Your task to perform on an android device: snooze an email in the gmail app Image 0: 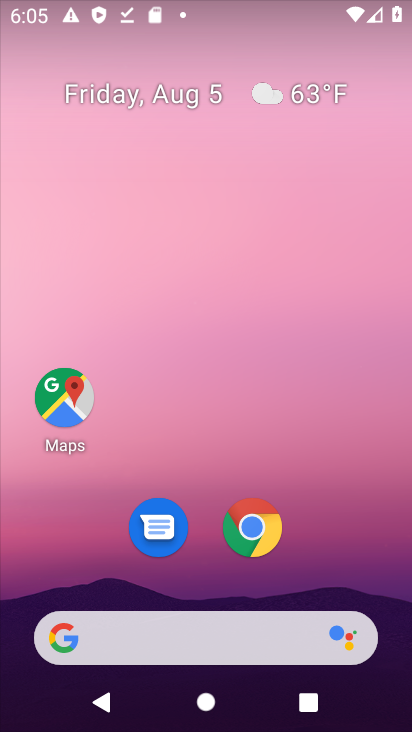
Step 0: drag from (202, 510) to (276, 7)
Your task to perform on an android device: snooze an email in the gmail app Image 1: 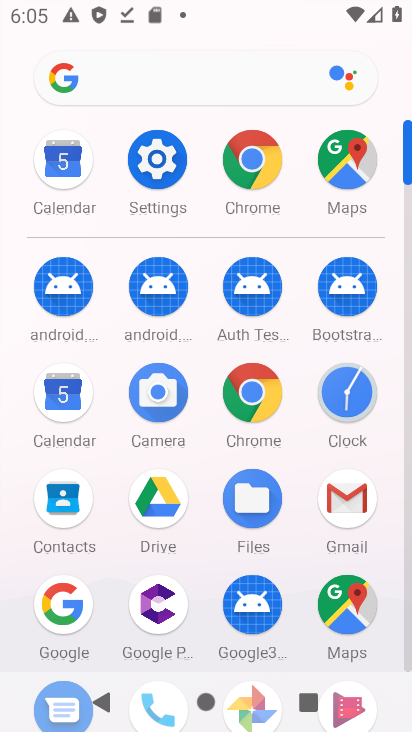
Step 1: click (358, 497)
Your task to perform on an android device: snooze an email in the gmail app Image 2: 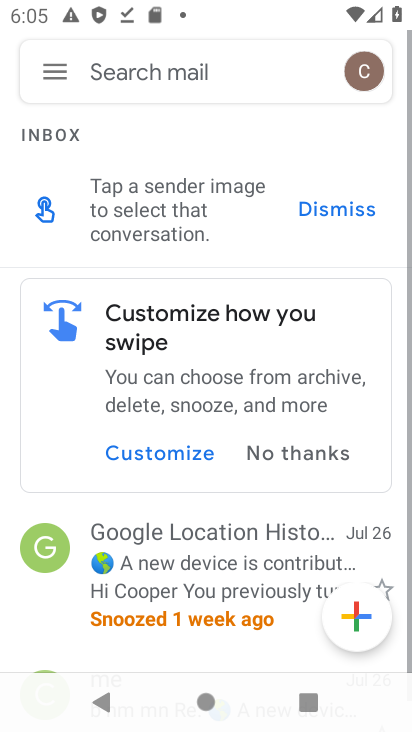
Step 2: click (60, 65)
Your task to perform on an android device: snooze an email in the gmail app Image 3: 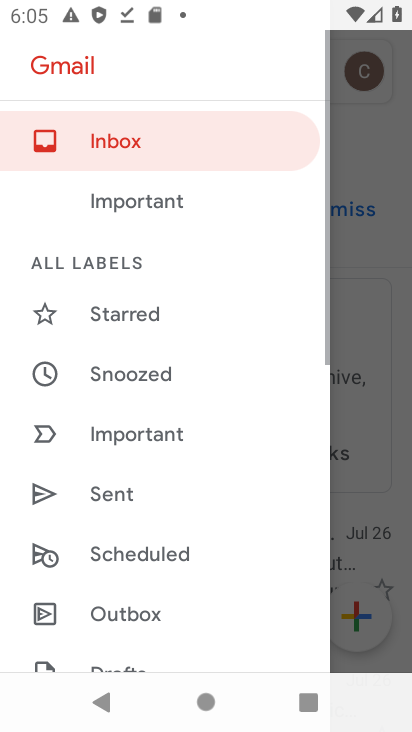
Step 3: drag from (181, 542) to (195, 32)
Your task to perform on an android device: snooze an email in the gmail app Image 4: 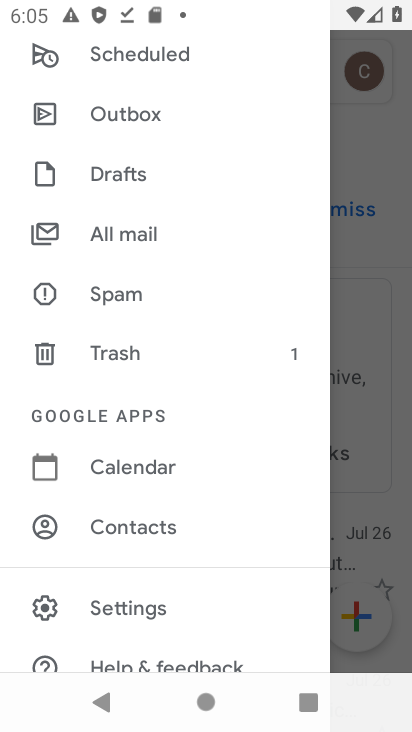
Step 4: drag from (127, 137) to (248, 713)
Your task to perform on an android device: snooze an email in the gmail app Image 5: 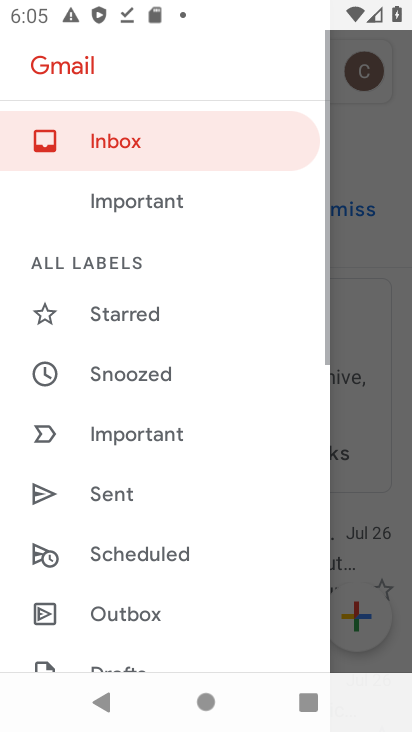
Step 5: click (130, 322)
Your task to perform on an android device: snooze an email in the gmail app Image 6: 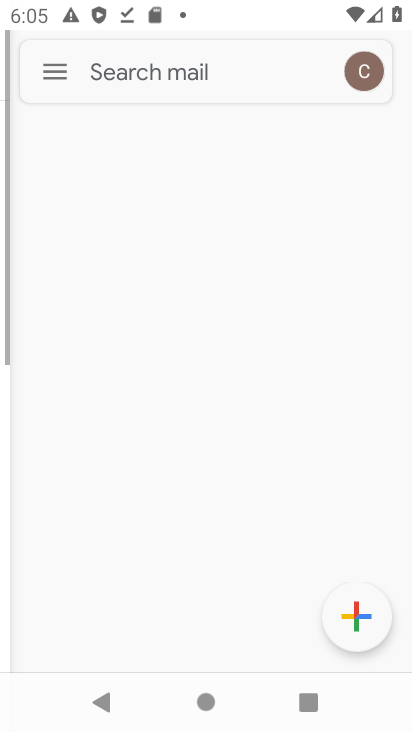
Step 6: drag from (132, 320) to (218, 55)
Your task to perform on an android device: snooze an email in the gmail app Image 7: 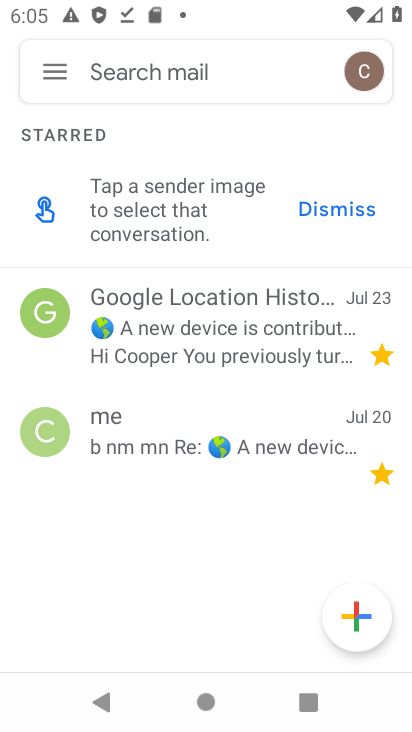
Step 7: click (53, 67)
Your task to perform on an android device: snooze an email in the gmail app Image 8: 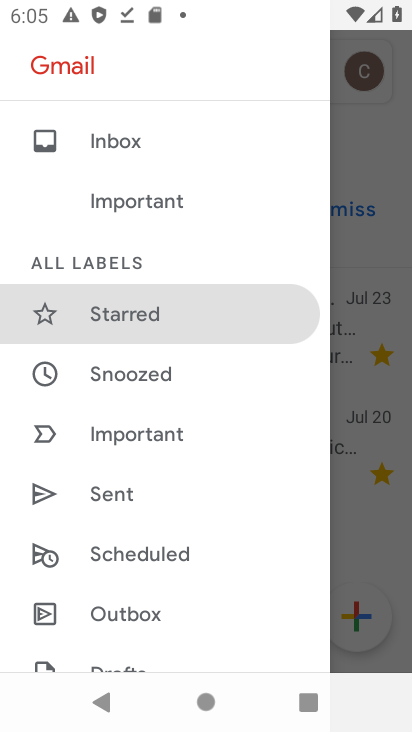
Step 8: click (367, 171)
Your task to perform on an android device: snooze an email in the gmail app Image 9: 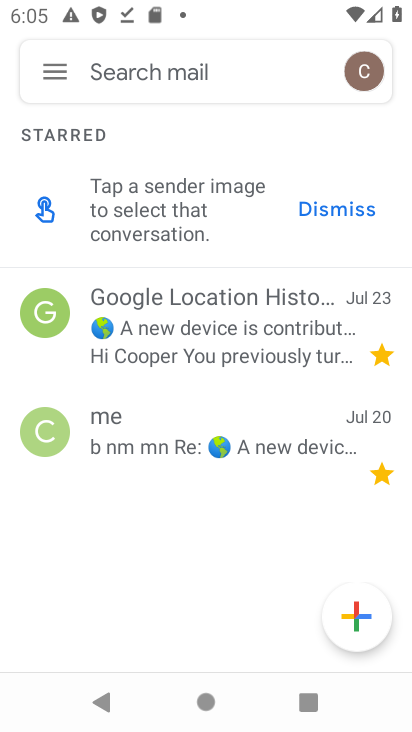
Step 9: click (242, 339)
Your task to perform on an android device: snooze an email in the gmail app Image 10: 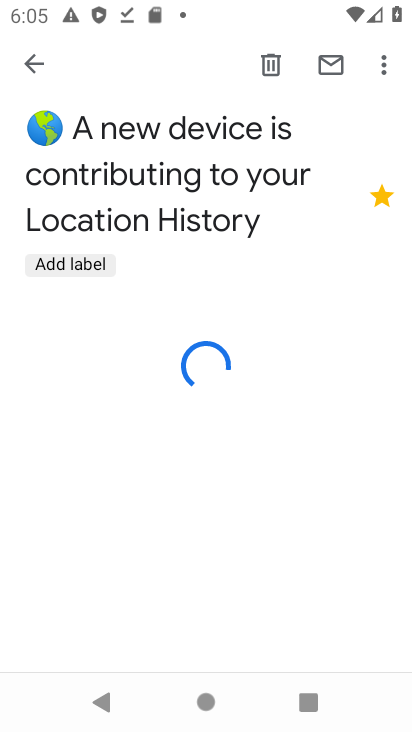
Step 10: click (49, 68)
Your task to perform on an android device: snooze an email in the gmail app Image 11: 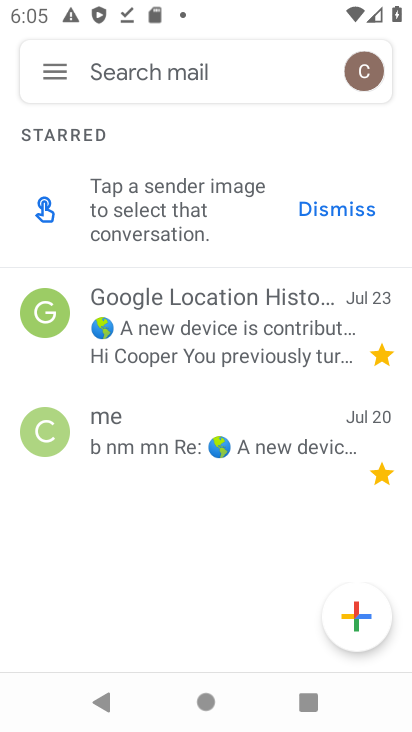
Step 11: click (50, 66)
Your task to perform on an android device: snooze an email in the gmail app Image 12: 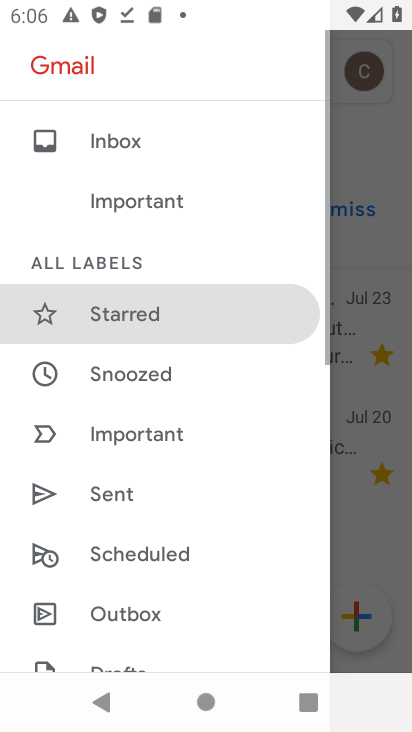
Step 12: click (95, 141)
Your task to perform on an android device: snooze an email in the gmail app Image 13: 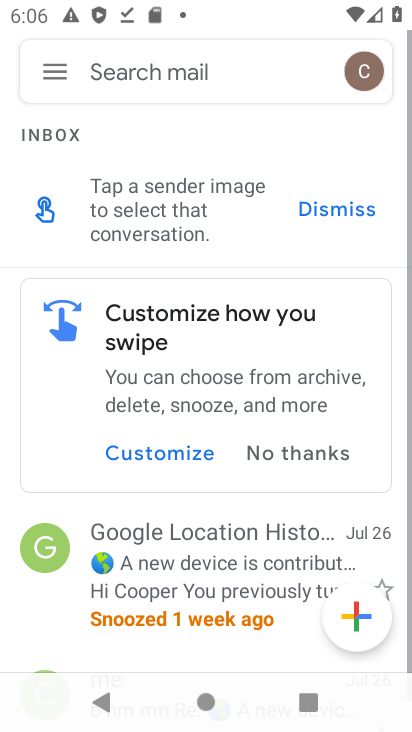
Step 13: click (192, 565)
Your task to perform on an android device: snooze an email in the gmail app Image 14: 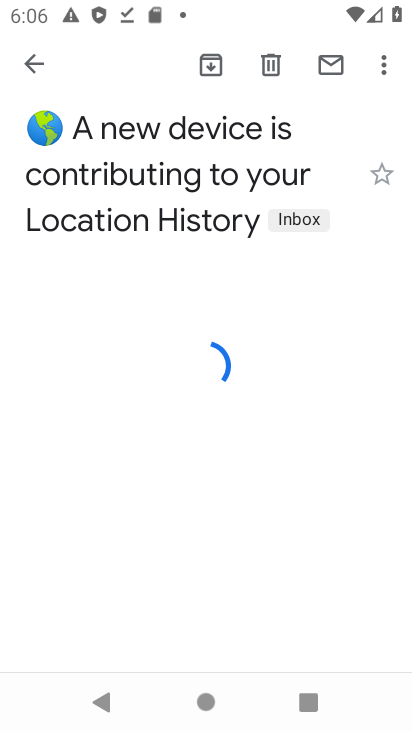
Step 14: drag from (379, 58) to (282, 133)
Your task to perform on an android device: snooze an email in the gmail app Image 15: 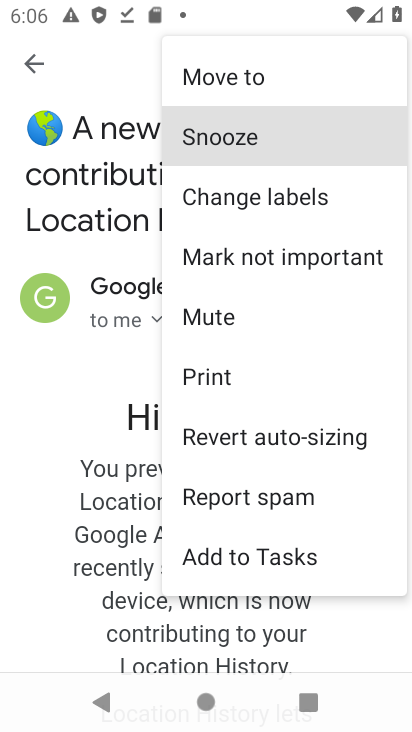
Step 15: click (282, 133)
Your task to perform on an android device: snooze an email in the gmail app Image 16: 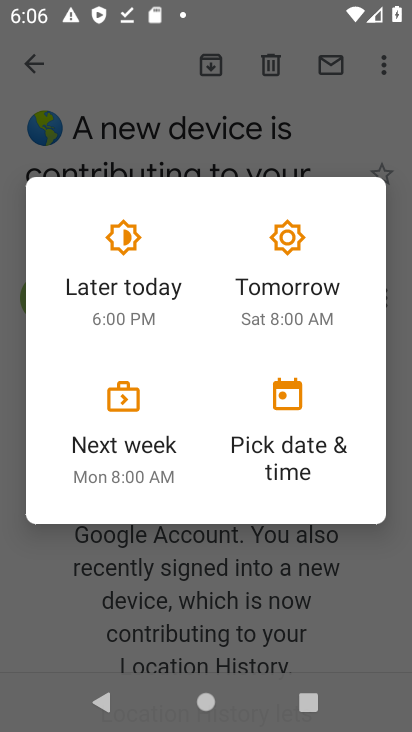
Step 16: click (131, 228)
Your task to perform on an android device: snooze an email in the gmail app Image 17: 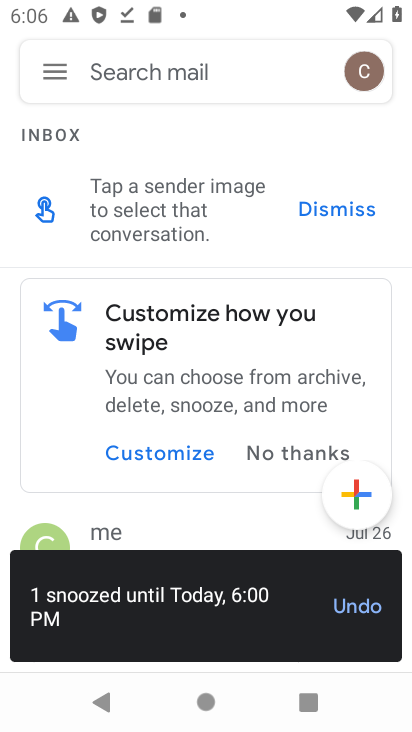
Step 17: task complete